Your task to perform on an android device: turn on the 24-hour format for clock Image 0: 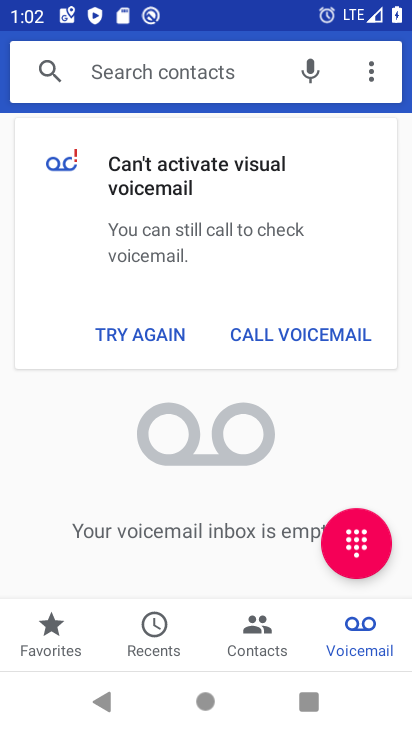
Step 0: press home button
Your task to perform on an android device: turn on the 24-hour format for clock Image 1: 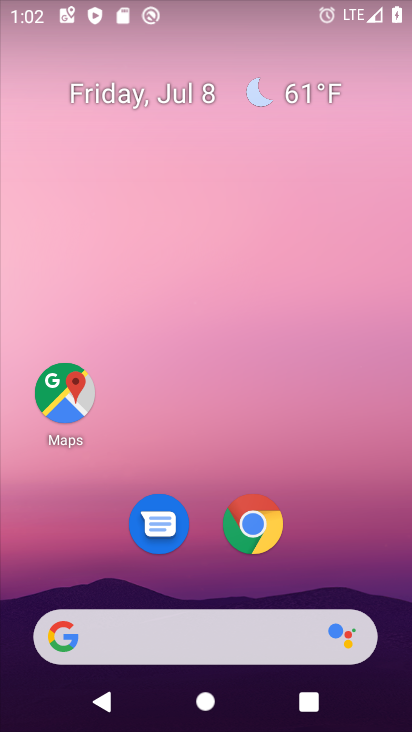
Step 1: drag from (313, 539) to (326, 34)
Your task to perform on an android device: turn on the 24-hour format for clock Image 2: 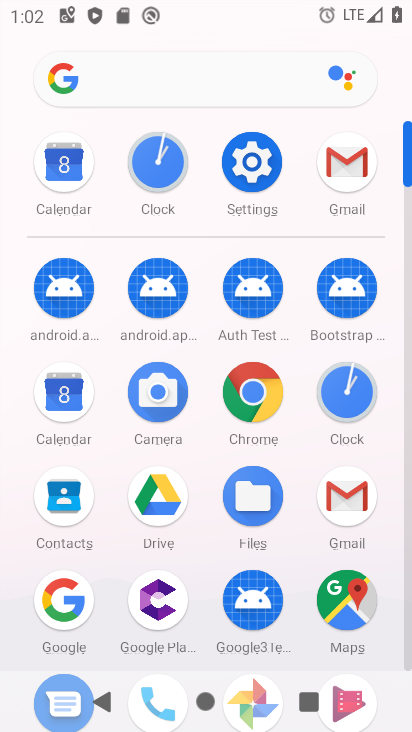
Step 2: click (343, 392)
Your task to perform on an android device: turn on the 24-hour format for clock Image 3: 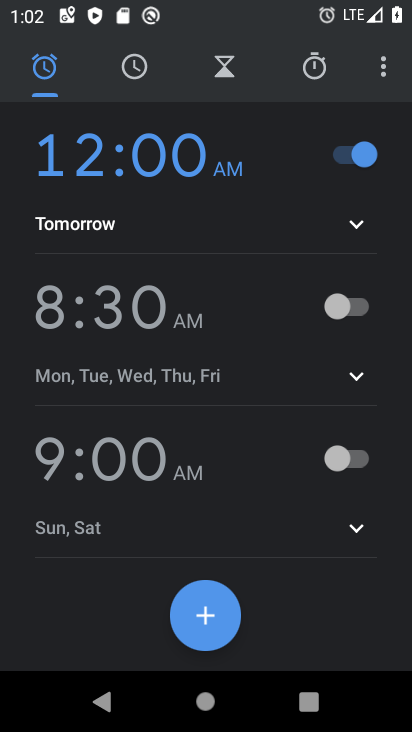
Step 3: click (384, 81)
Your task to perform on an android device: turn on the 24-hour format for clock Image 4: 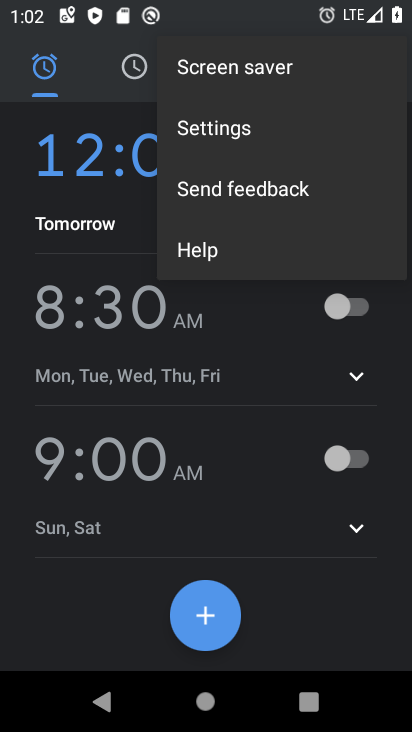
Step 4: click (257, 129)
Your task to perform on an android device: turn on the 24-hour format for clock Image 5: 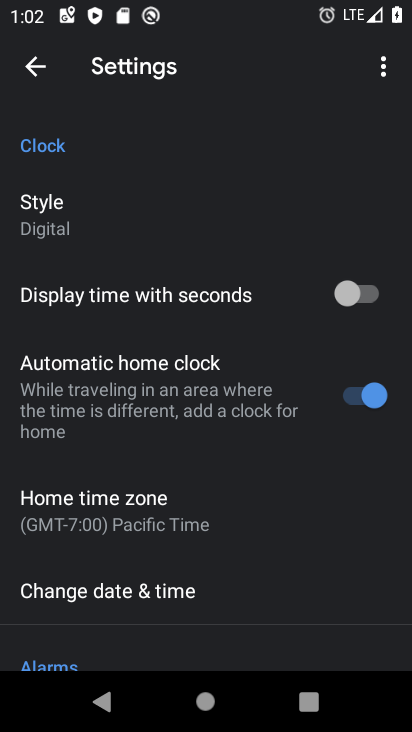
Step 5: click (199, 587)
Your task to perform on an android device: turn on the 24-hour format for clock Image 6: 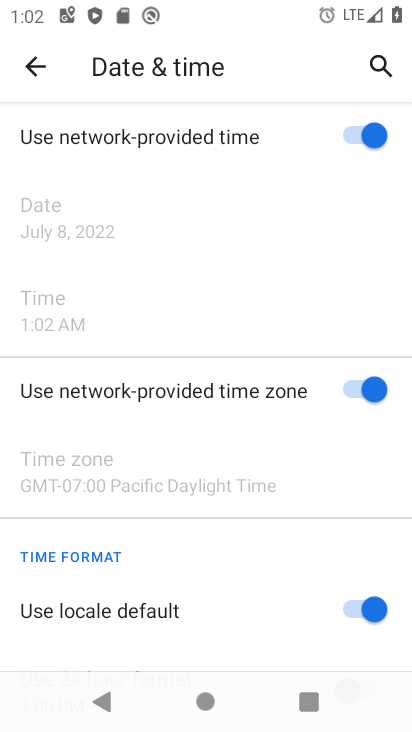
Step 6: drag from (234, 555) to (265, 273)
Your task to perform on an android device: turn on the 24-hour format for clock Image 7: 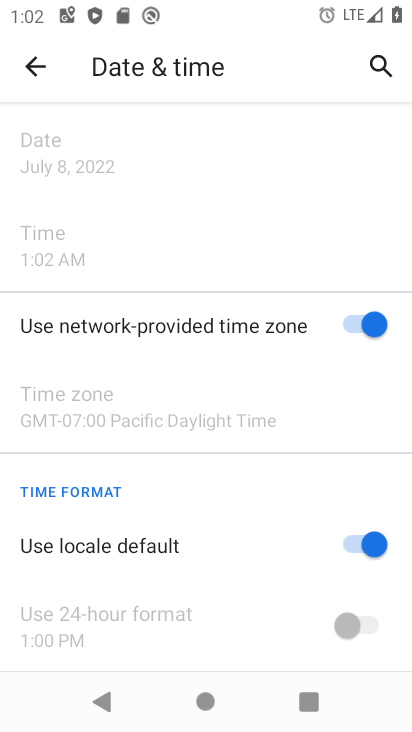
Step 7: click (360, 542)
Your task to perform on an android device: turn on the 24-hour format for clock Image 8: 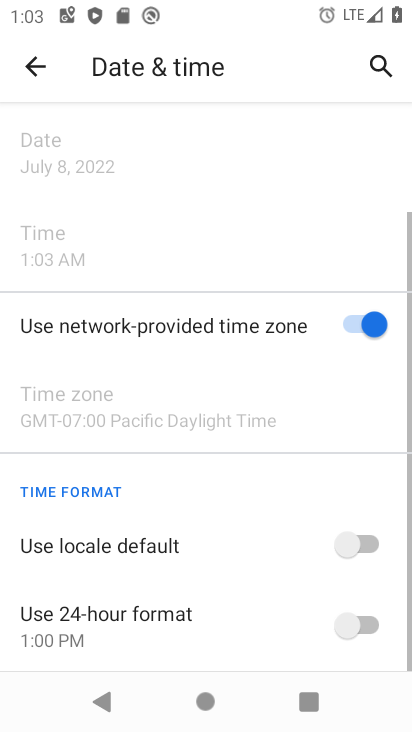
Step 8: click (363, 620)
Your task to perform on an android device: turn on the 24-hour format for clock Image 9: 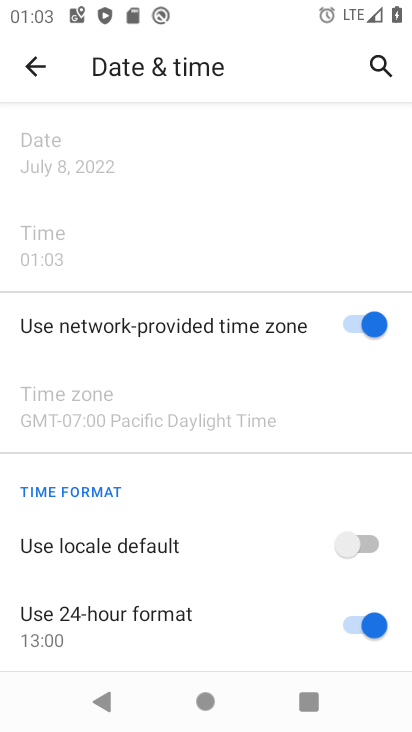
Step 9: task complete